Your task to perform on an android device: Open settings Image 0: 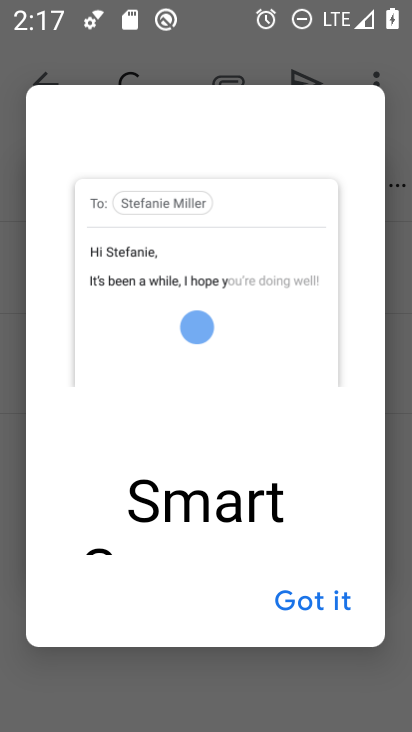
Step 0: press home button
Your task to perform on an android device: Open settings Image 1: 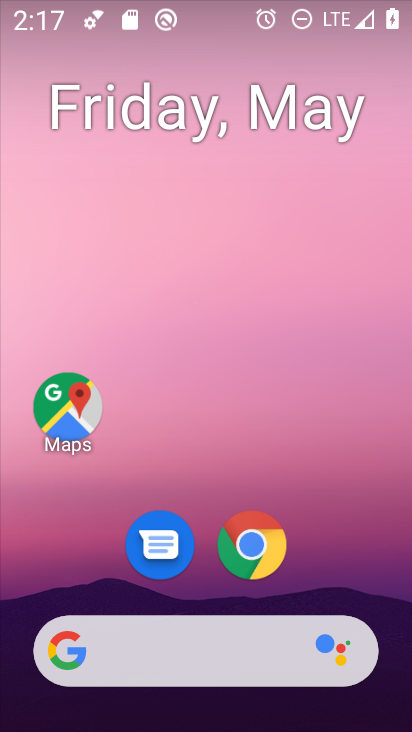
Step 1: drag from (314, 569) to (291, 294)
Your task to perform on an android device: Open settings Image 2: 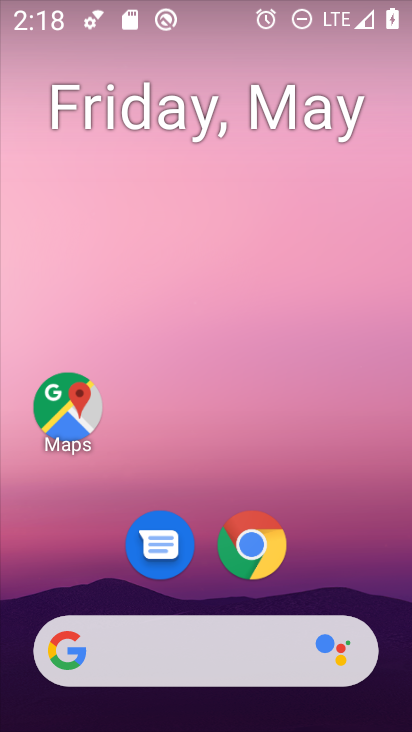
Step 2: drag from (254, 564) to (253, 202)
Your task to perform on an android device: Open settings Image 3: 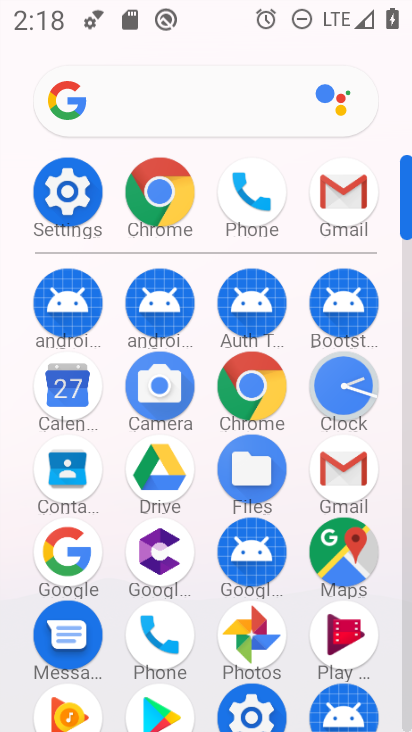
Step 3: click (73, 196)
Your task to perform on an android device: Open settings Image 4: 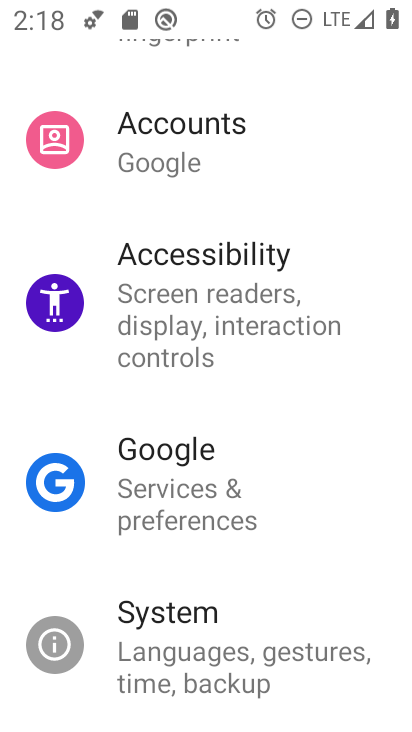
Step 4: task complete